Your task to perform on an android device: open app "ColorNote Notepad Notes" Image 0: 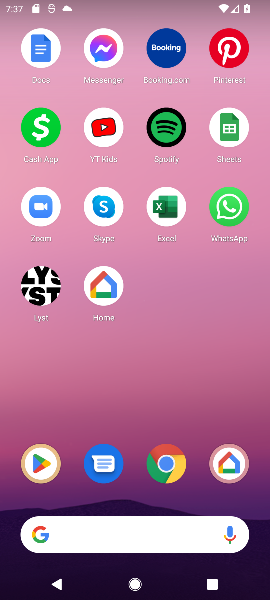
Step 0: click (48, 449)
Your task to perform on an android device: open app "ColorNote Notepad Notes" Image 1: 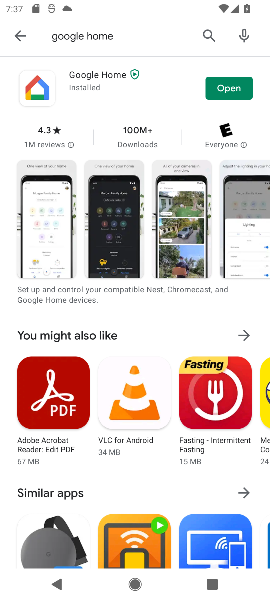
Step 1: press home button
Your task to perform on an android device: open app "ColorNote Notepad Notes" Image 2: 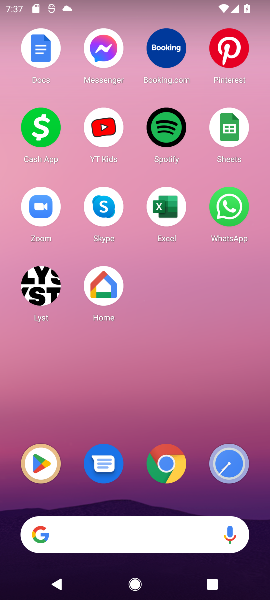
Step 2: click (26, 484)
Your task to perform on an android device: open app "ColorNote Notepad Notes" Image 3: 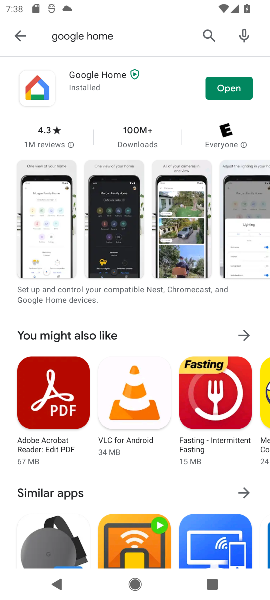
Step 3: click (198, 38)
Your task to perform on an android device: open app "ColorNote Notepad Notes" Image 4: 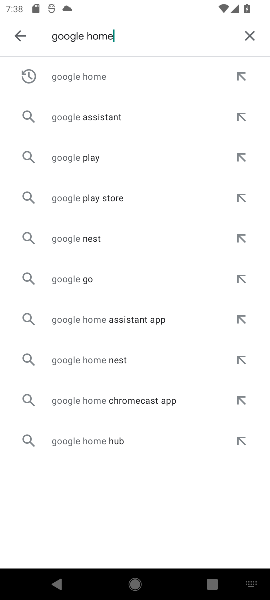
Step 4: click (258, 39)
Your task to perform on an android device: open app "ColorNote Notepad Notes" Image 5: 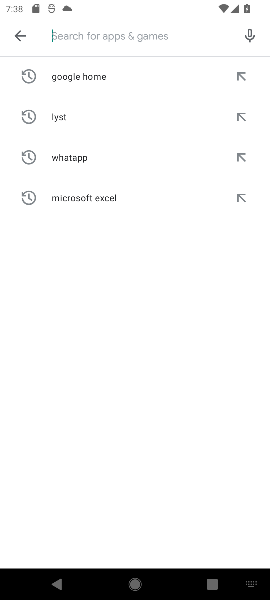
Step 5: type "colornotepad note"
Your task to perform on an android device: open app "ColorNote Notepad Notes" Image 6: 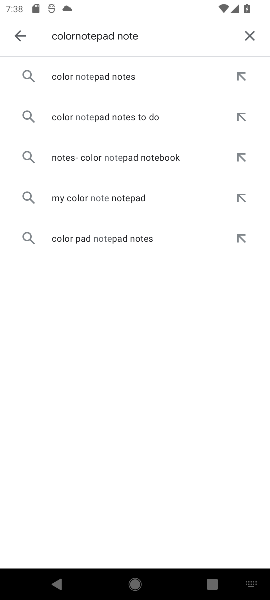
Step 6: click (178, 83)
Your task to perform on an android device: open app "ColorNote Notepad Notes" Image 7: 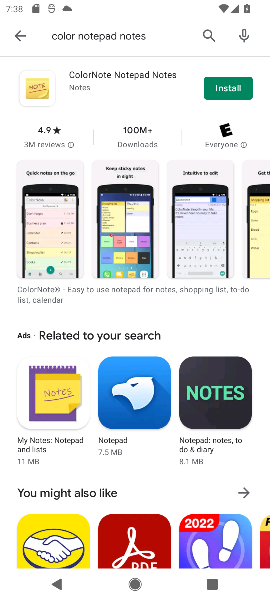
Step 7: task complete